Your task to perform on an android device: What is the news today? Image 0: 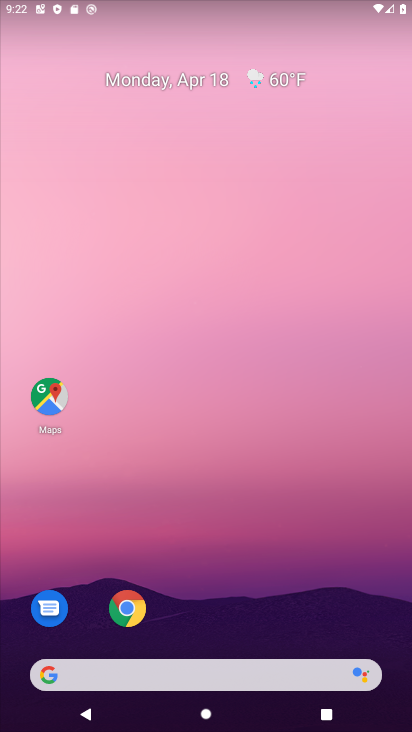
Step 0: drag from (237, 594) to (268, 6)
Your task to perform on an android device: What is the news today? Image 1: 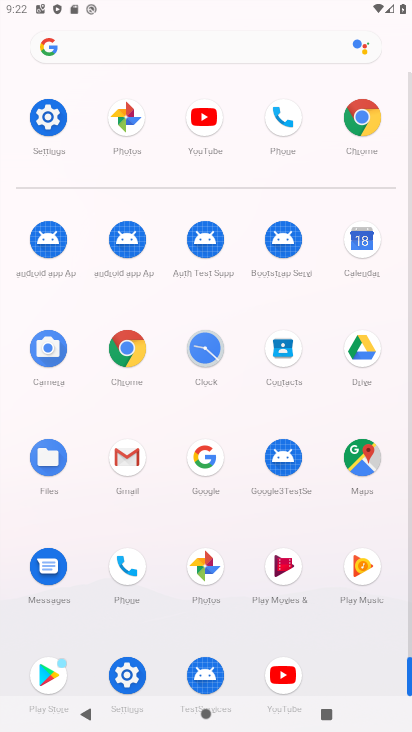
Step 1: click (128, 358)
Your task to perform on an android device: What is the news today? Image 2: 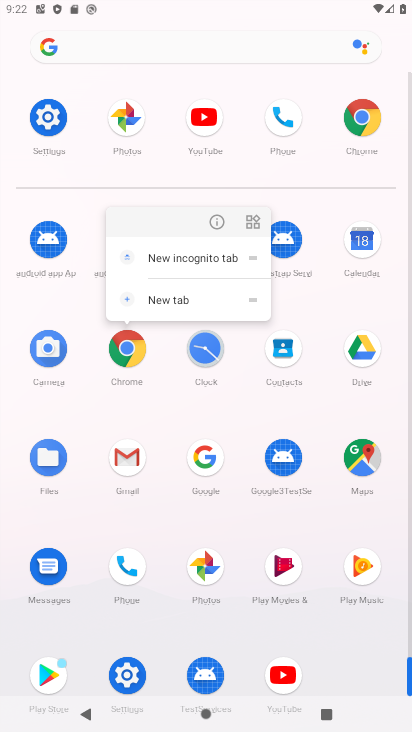
Step 2: click (123, 352)
Your task to perform on an android device: What is the news today? Image 3: 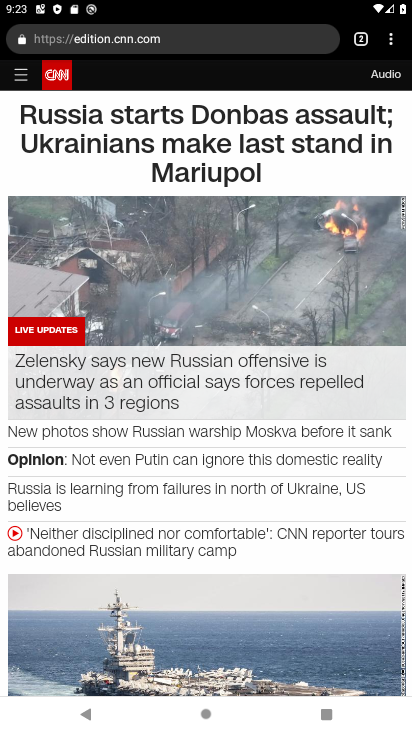
Step 3: drag from (228, 582) to (308, 260)
Your task to perform on an android device: What is the news today? Image 4: 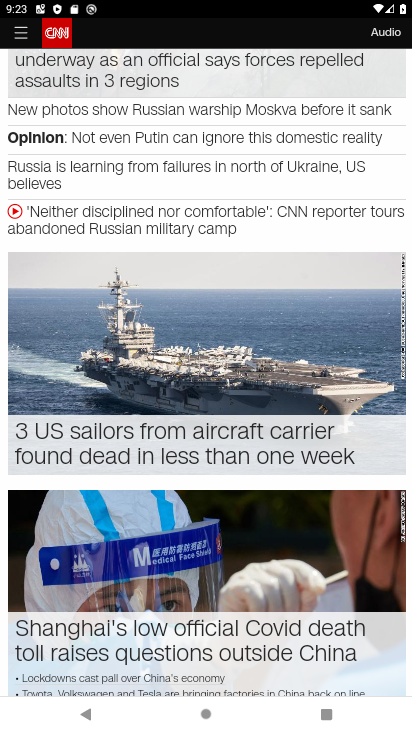
Step 4: drag from (254, 612) to (300, 290)
Your task to perform on an android device: What is the news today? Image 5: 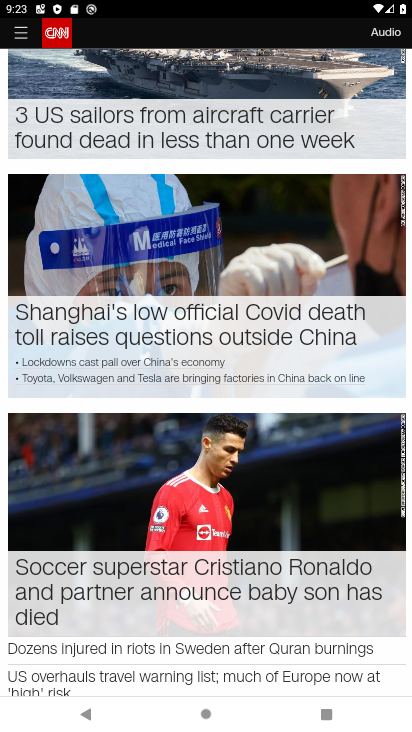
Step 5: drag from (234, 642) to (252, 165)
Your task to perform on an android device: What is the news today? Image 6: 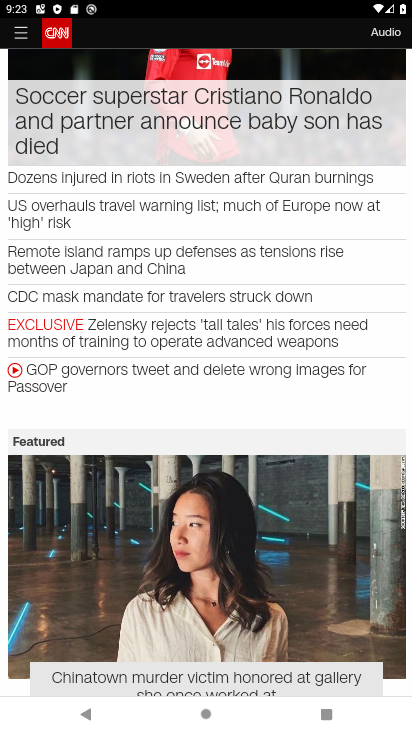
Step 6: drag from (345, 376) to (394, 113)
Your task to perform on an android device: What is the news today? Image 7: 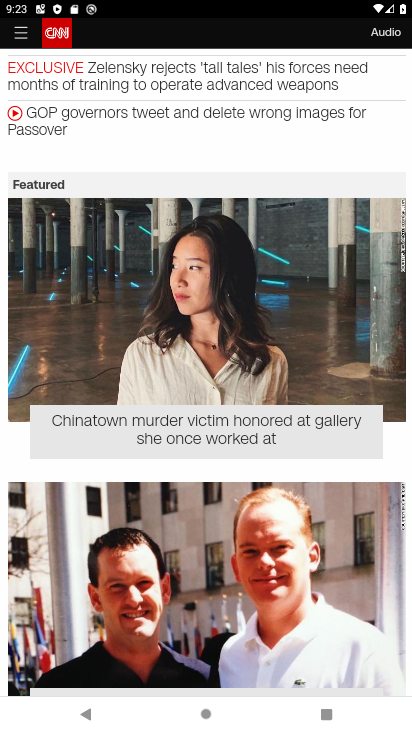
Step 7: drag from (197, 140) to (337, 599)
Your task to perform on an android device: What is the news today? Image 8: 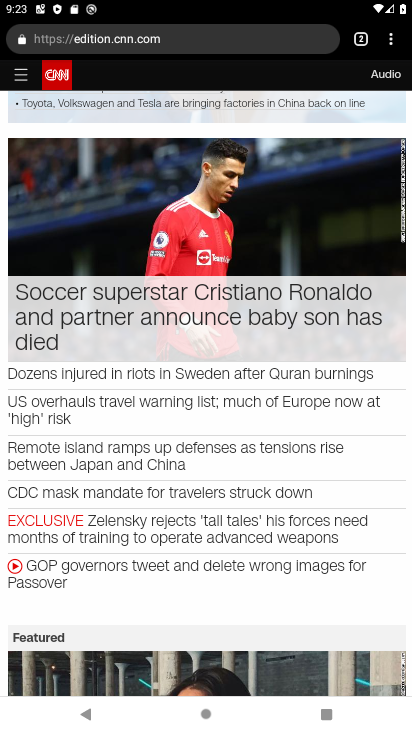
Step 8: click (229, 39)
Your task to perform on an android device: What is the news today? Image 9: 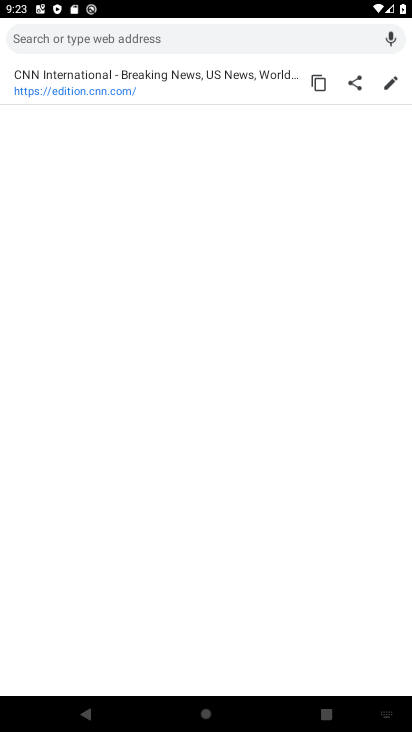
Step 9: type "new today"
Your task to perform on an android device: What is the news today? Image 10: 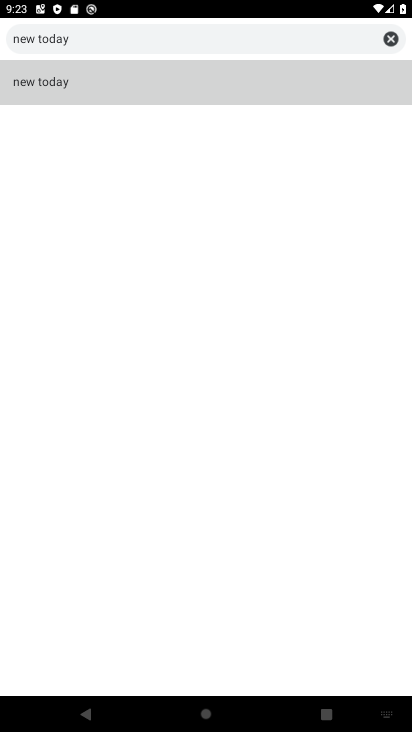
Step 10: click (59, 92)
Your task to perform on an android device: What is the news today? Image 11: 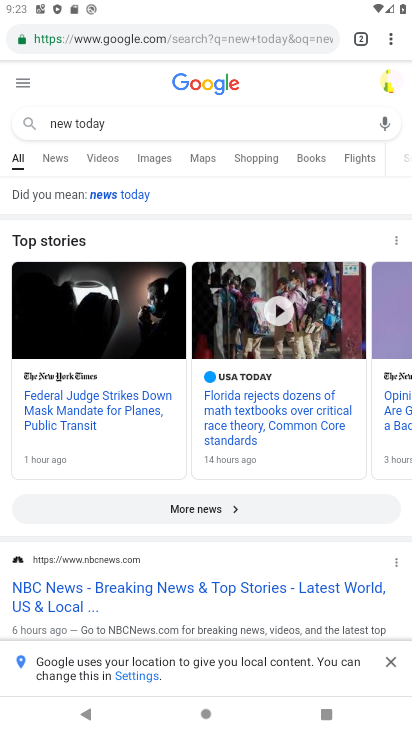
Step 11: task complete